Your task to perform on an android device: turn off picture-in-picture Image 0: 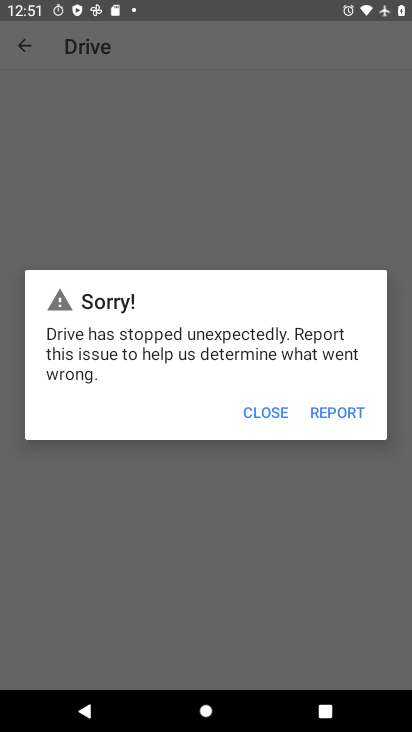
Step 0: press home button
Your task to perform on an android device: turn off picture-in-picture Image 1: 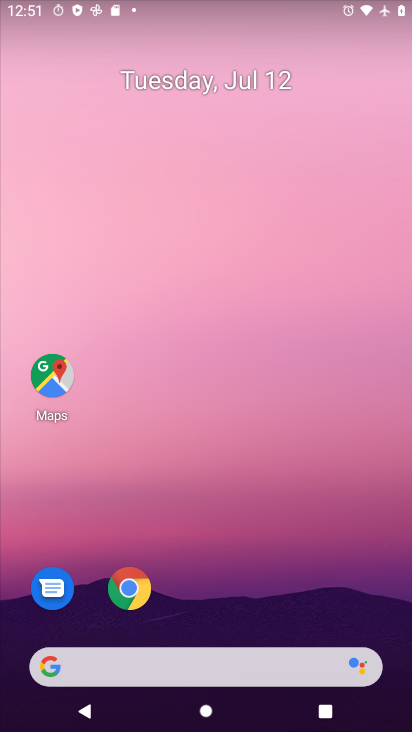
Step 1: drag from (127, 589) to (230, 435)
Your task to perform on an android device: turn off picture-in-picture Image 2: 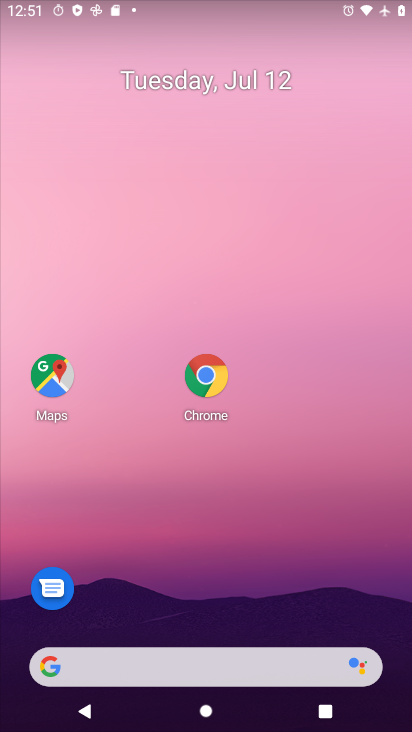
Step 2: drag from (190, 360) to (238, 314)
Your task to perform on an android device: turn off picture-in-picture Image 3: 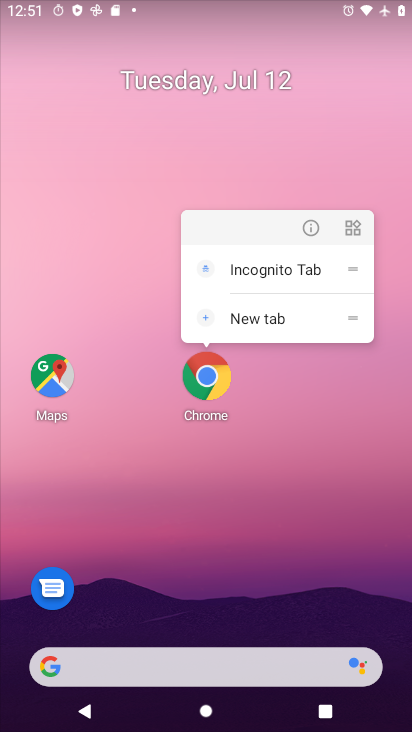
Step 3: click (306, 226)
Your task to perform on an android device: turn off picture-in-picture Image 4: 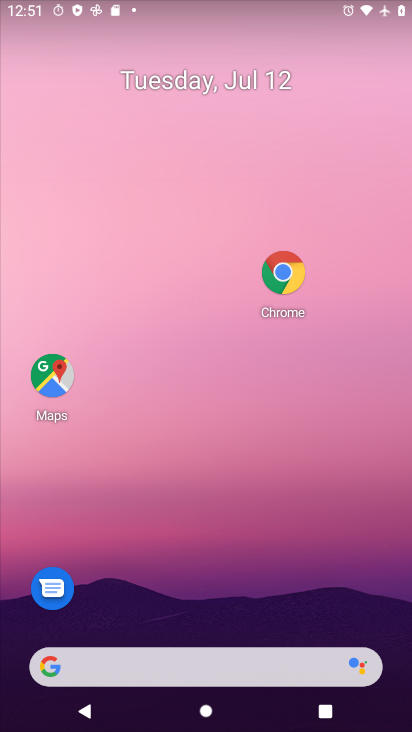
Step 4: click (290, 264)
Your task to perform on an android device: turn off picture-in-picture Image 5: 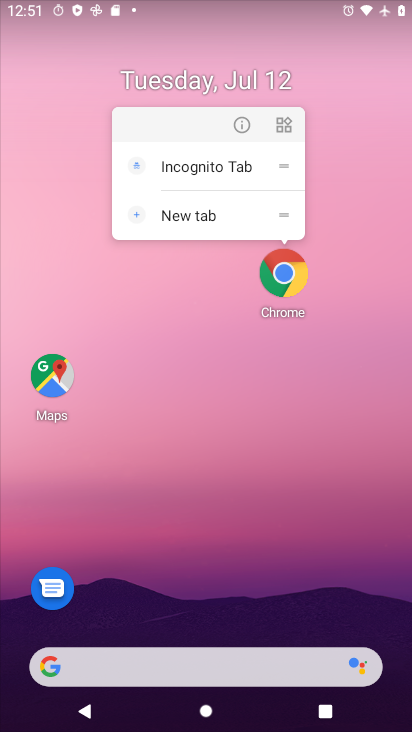
Step 5: click (249, 127)
Your task to perform on an android device: turn off picture-in-picture Image 6: 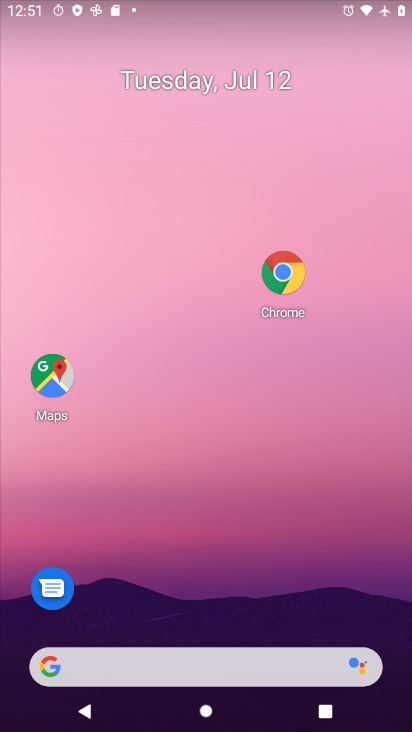
Step 6: drag from (292, 263) to (190, 560)
Your task to perform on an android device: turn off picture-in-picture Image 7: 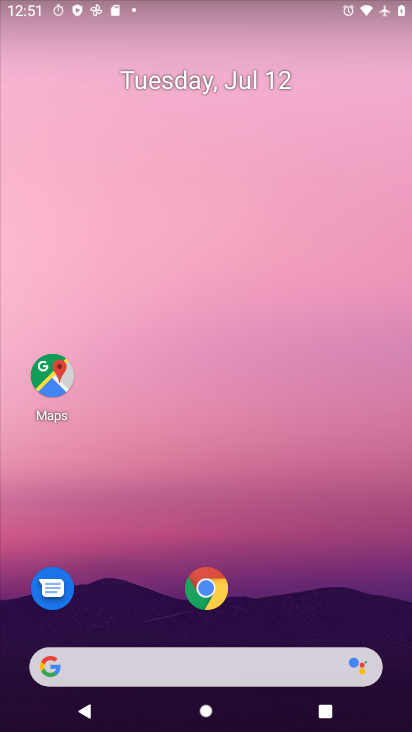
Step 7: click (202, 591)
Your task to perform on an android device: turn off picture-in-picture Image 8: 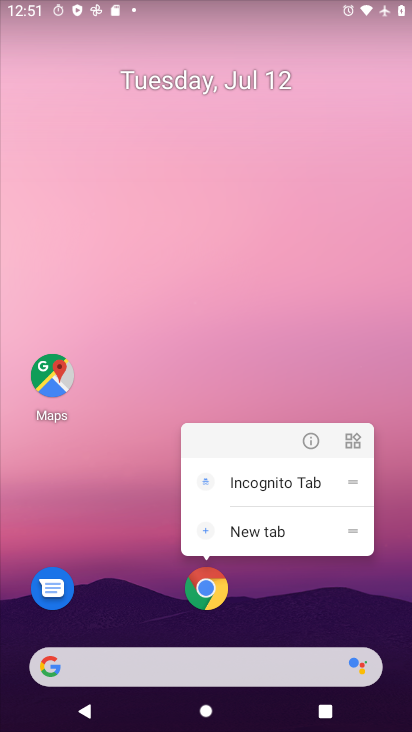
Step 8: click (312, 437)
Your task to perform on an android device: turn off picture-in-picture Image 9: 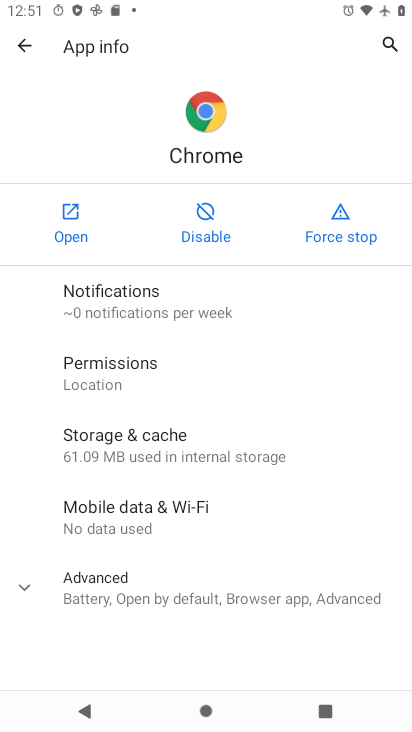
Step 9: drag from (186, 580) to (298, 163)
Your task to perform on an android device: turn off picture-in-picture Image 10: 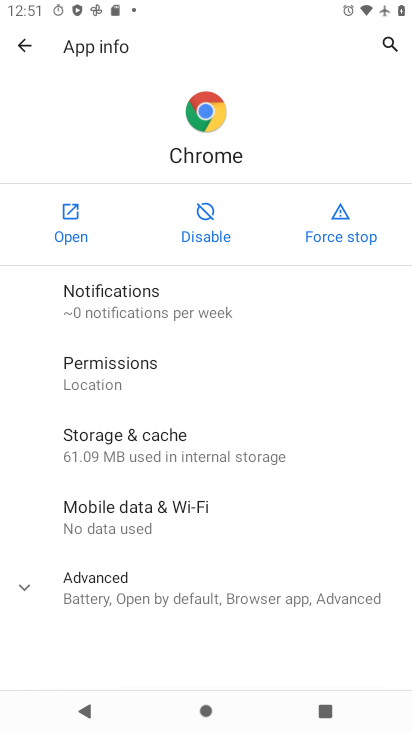
Step 10: click (154, 589)
Your task to perform on an android device: turn off picture-in-picture Image 11: 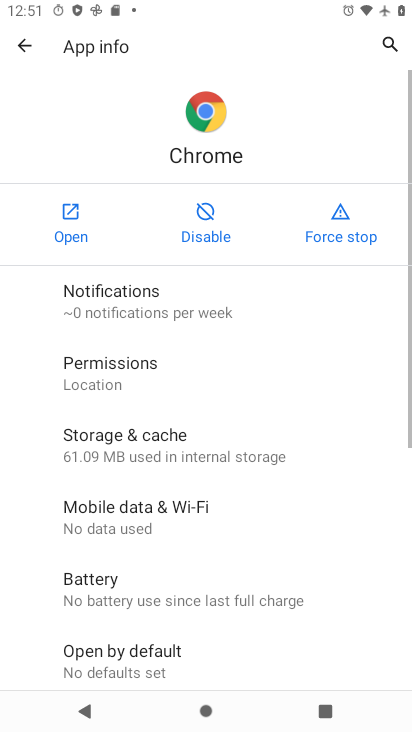
Step 11: drag from (166, 633) to (313, 153)
Your task to perform on an android device: turn off picture-in-picture Image 12: 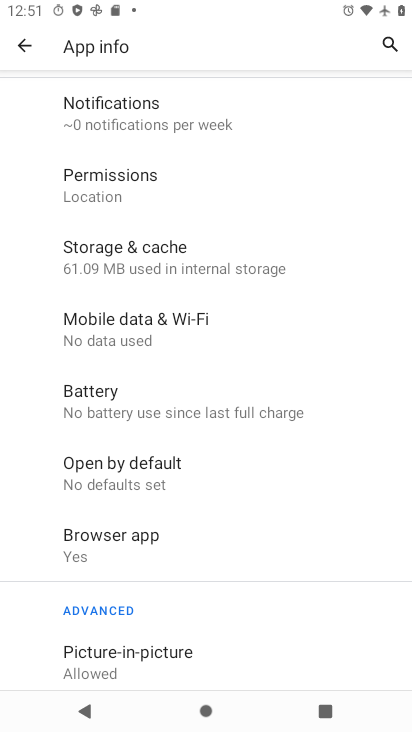
Step 12: drag from (199, 577) to (329, 235)
Your task to perform on an android device: turn off picture-in-picture Image 13: 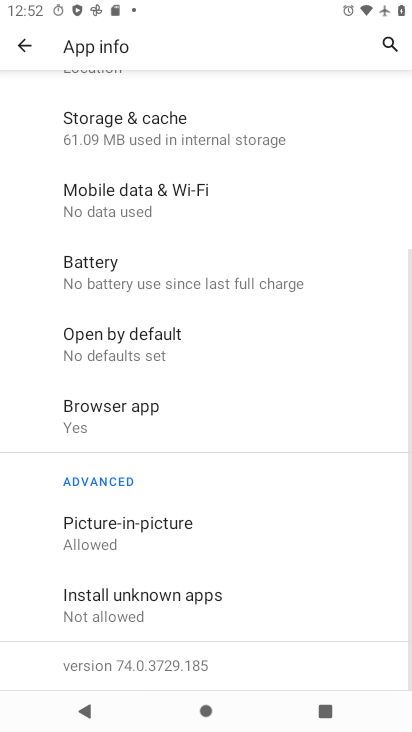
Step 13: click (152, 526)
Your task to perform on an android device: turn off picture-in-picture Image 14: 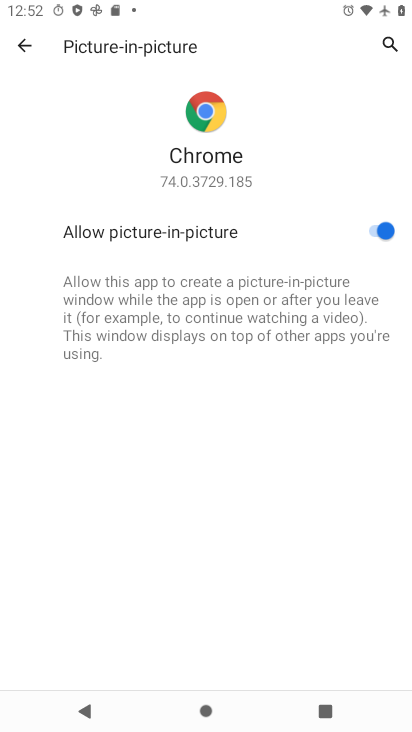
Step 14: click (373, 229)
Your task to perform on an android device: turn off picture-in-picture Image 15: 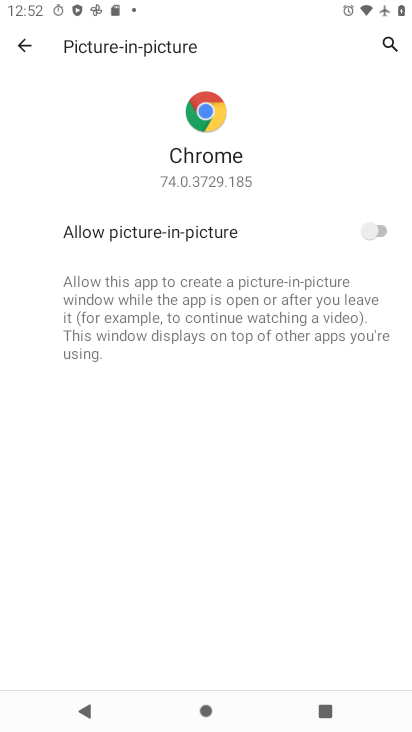
Step 15: task complete